Your task to perform on an android device: turn off data saver in the chrome app Image 0: 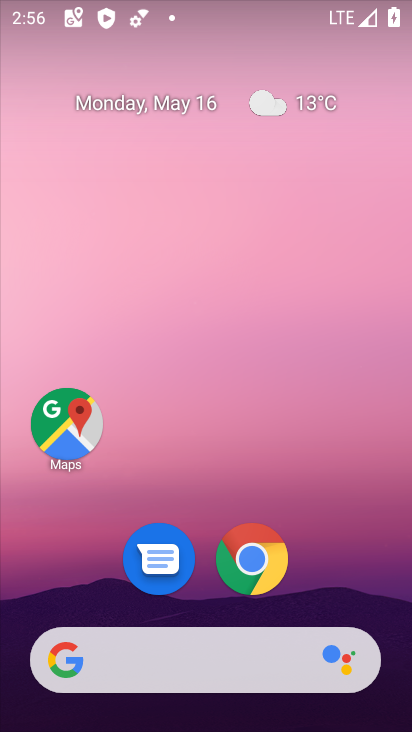
Step 0: click (259, 551)
Your task to perform on an android device: turn off data saver in the chrome app Image 1: 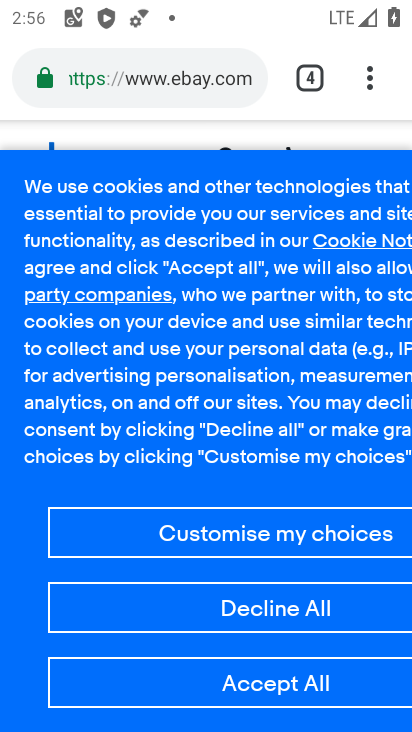
Step 1: drag from (373, 70) to (73, 617)
Your task to perform on an android device: turn off data saver in the chrome app Image 2: 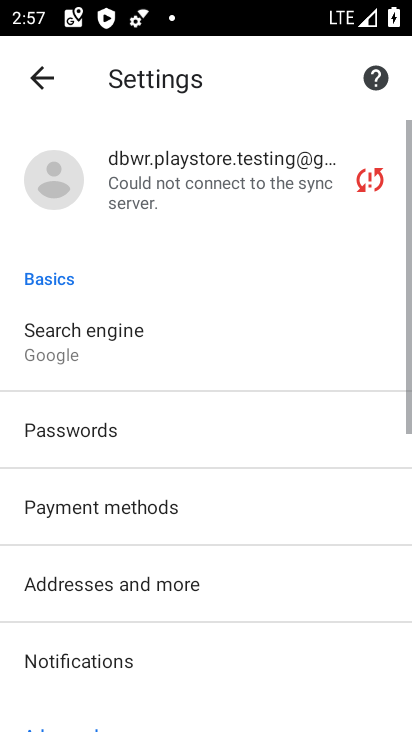
Step 2: drag from (77, 605) to (156, 83)
Your task to perform on an android device: turn off data saver in the chrome app Image 3: 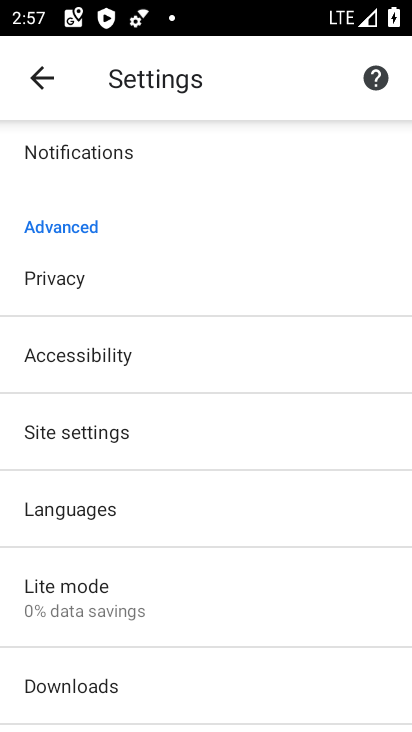
Step 3: click (123, 600)
Your task to perform on an android device: turn off data saver in the chrome app Image 4: 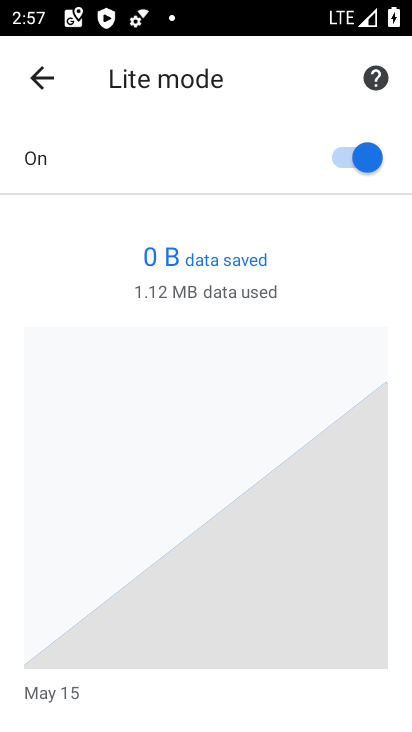
Step 4: click (359, 156)
Your task to perform on an android device: turn off data saver in the chrome app Image 5: 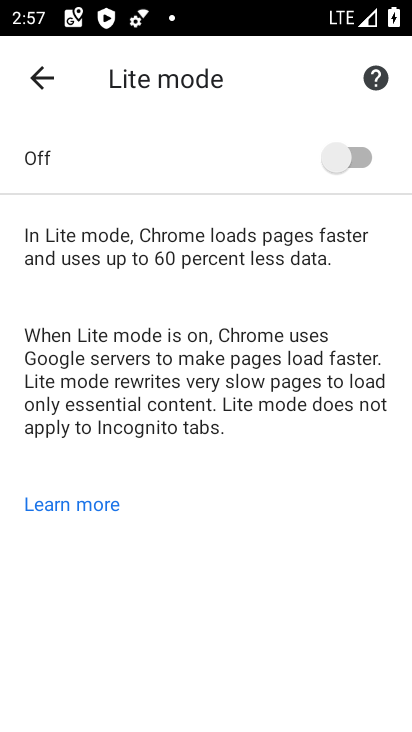
Step 5: task complete